Your task to perform on an android device: Go to internet settings Image 0: 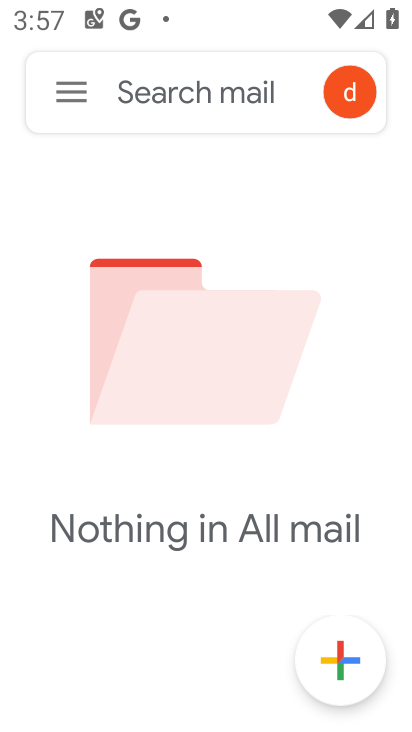
Step 0: press home button
Your task to perform on an android device: Go to internet settings Image 1: 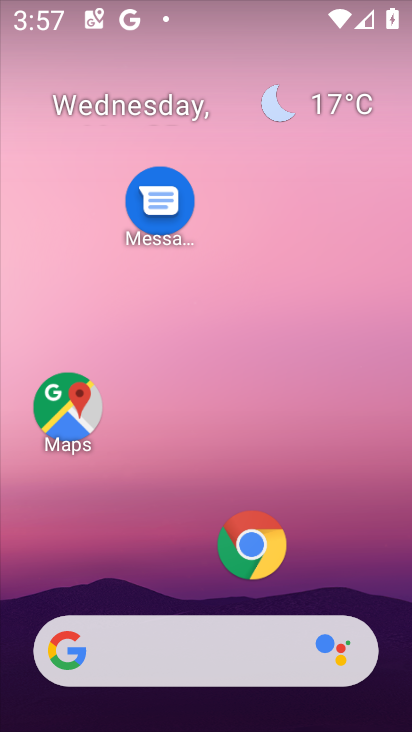
Step 1: drag from (349, 547) to (301, 120)
Your task to perform on an android device: Go to internet settings Image 2: 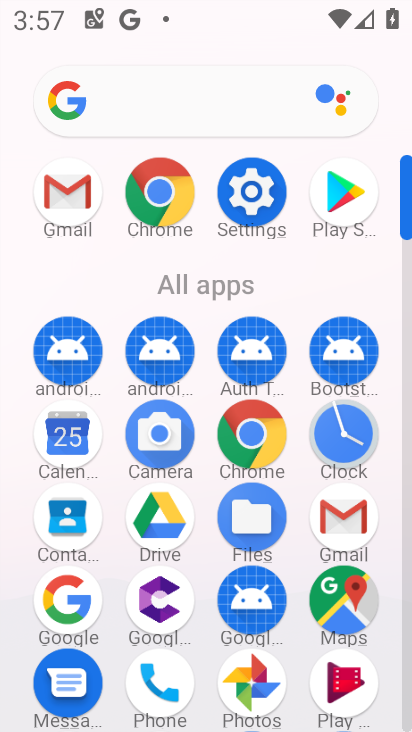
Step 2: click (267, 192)
Your task to perform on an android device: Go to internet settings Image 3: 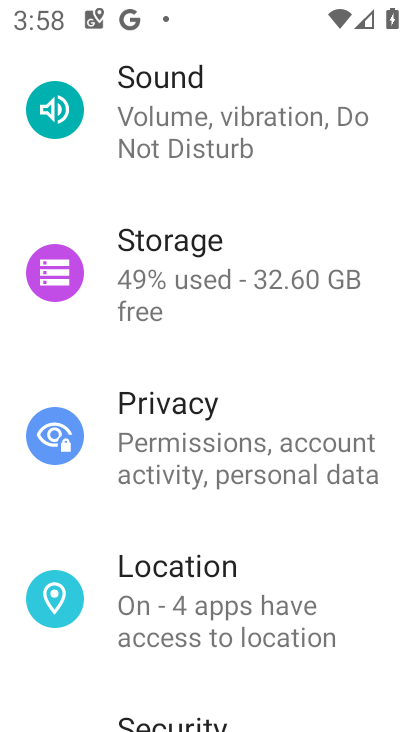
Step 3: drag from (238, 173) to (245, 629)
Your task to perform on an android device: Go to internet settings Image 4: 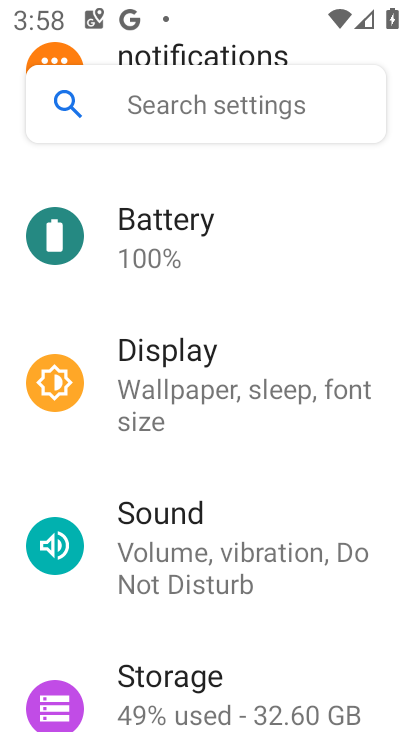
Step 4: drag from (251, 287) to (235, 636)
Your task to perform on an android device: Go to internet settings Image 5: 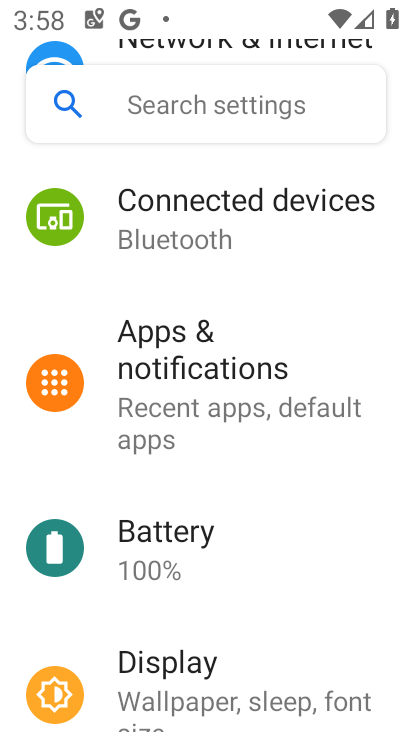
Step 5: drag from (229, 329) to (242, 676)
Your task to perform on an android device: Go to internet settings Image 6: 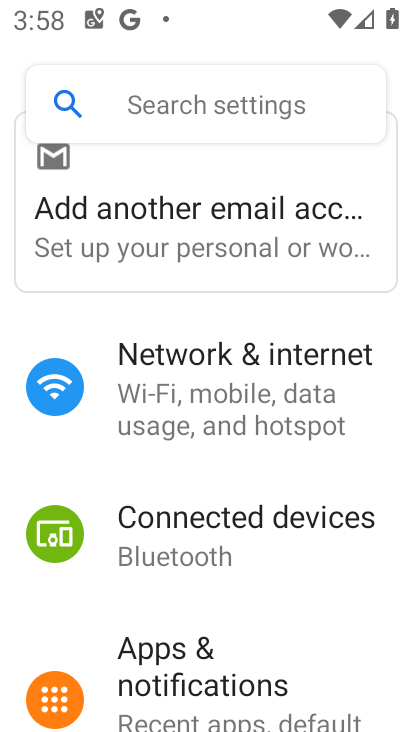
Step 6: click (236, 398)
Your task to perform on an android device: Go to internet settings Image 7: 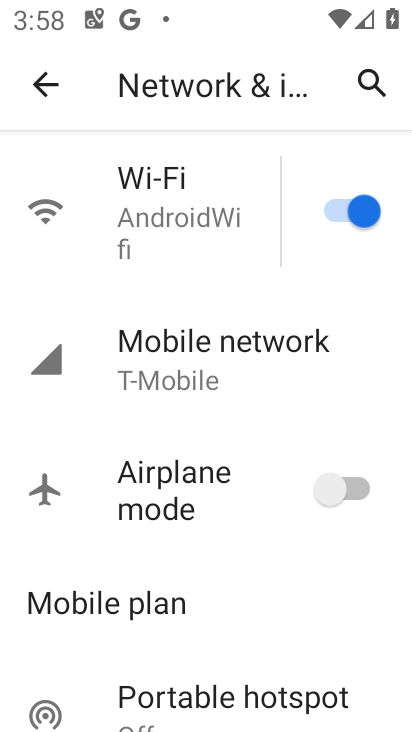
Step 7: task complete